Your task to perform on an android device: toggle improve location accuracy Image 0: 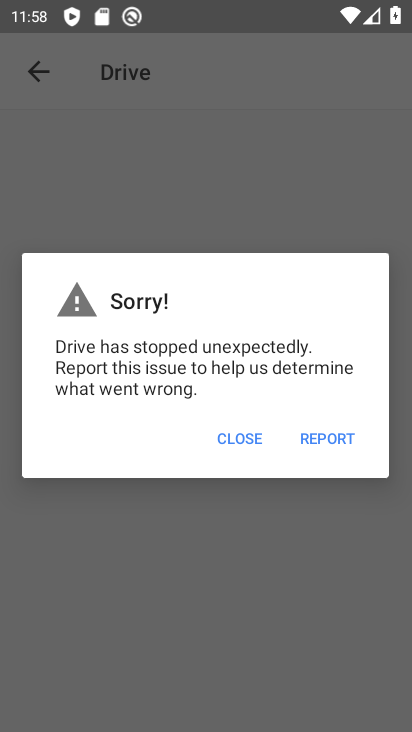
Step 0: press home button
Your task to perform on an android device: toggle improve location accuracy Image 1: 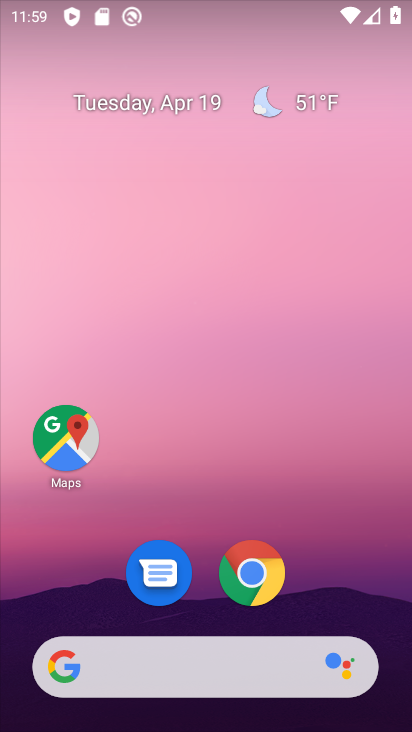
Step 1: drag from (315, 585) to (284, 132)
Your task to perform on an android device: toggle improve location accuracy Image 2: 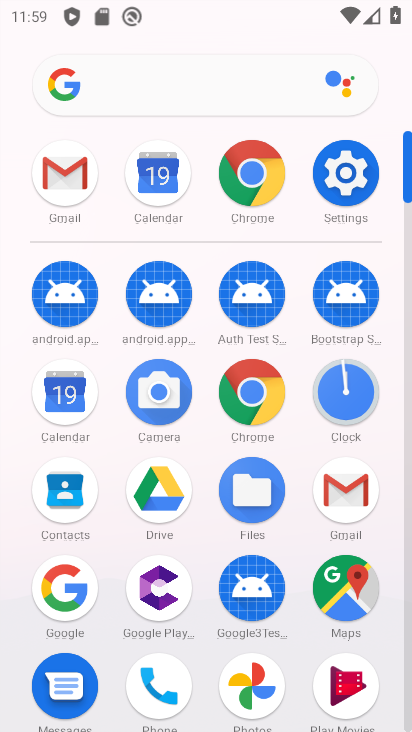
Step 2: drag from (346, 184) to (327, 240)
Your task to perform on an android device: toggle improve location accuracy Image 3: 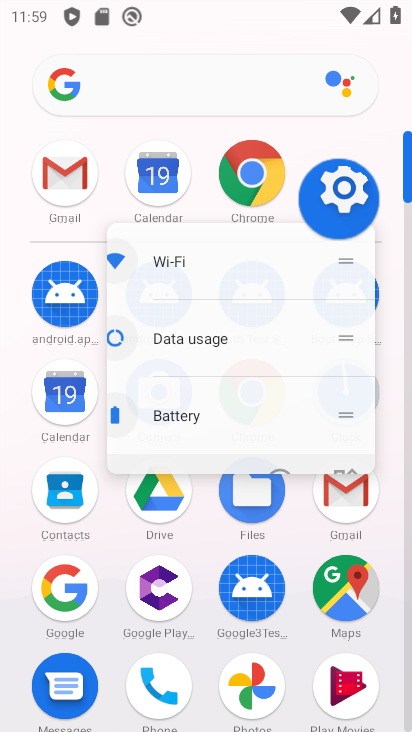
Step 3: click (330, 174)
Your task to perform on an android device: toggle improve location accuracy Image 4: 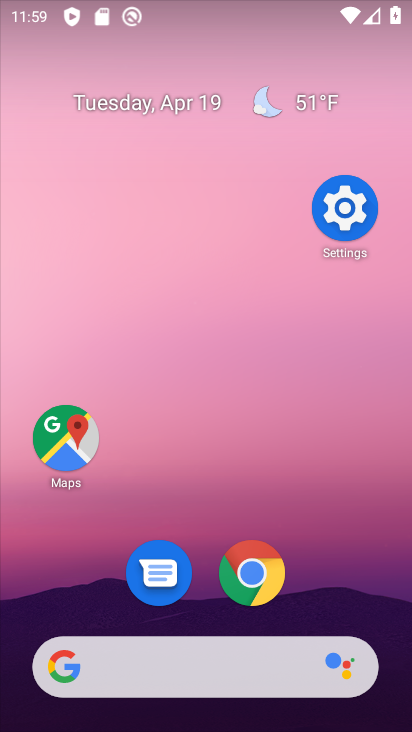
Step 4: click (347, 222)
Your task to perform on an android device: toggle improve location accuracy Image 5: 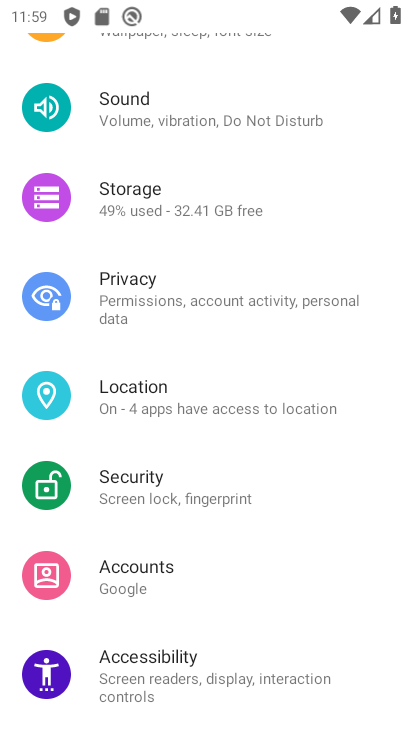
Step 5: click (202, 410)
Your task to perform on an android device: toggle improve location accuracy Image 6: 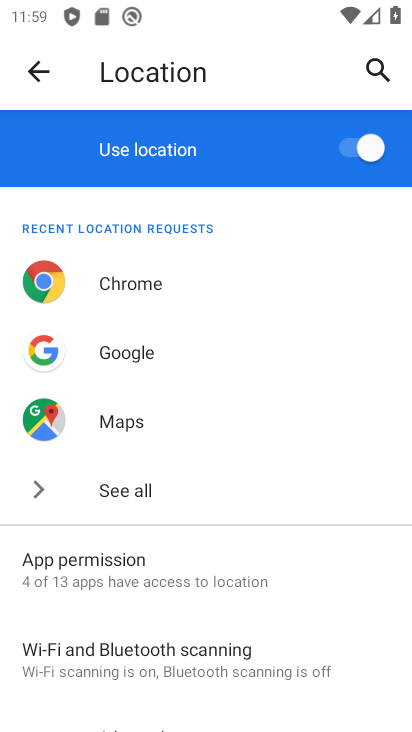
Step 6: drag from (152, 598) to (191, 350)
Your task to perform on an android device: toggle improve location accuracy Image 7: 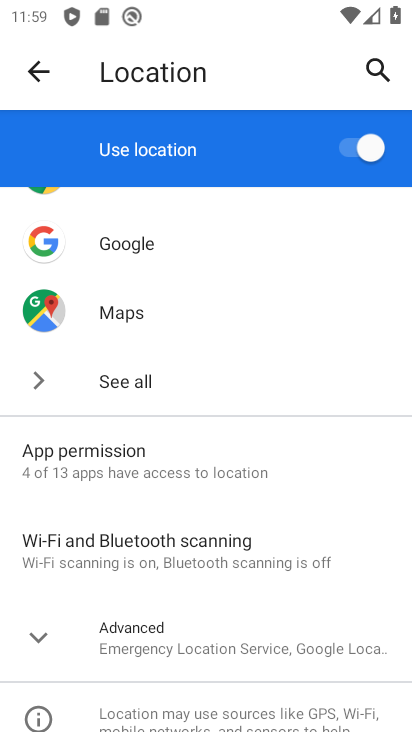
Step 7: drag from (142, 600) to (175, 351)
Your task to perform on an android device: toggle improve location accuracy Image 8: 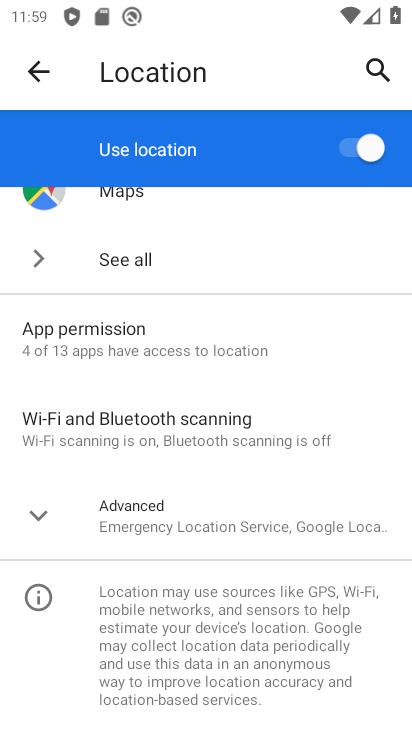
Step 8: click (46, 515)
Your task to perform on an android device: toggle improve location accuracy Image 9: 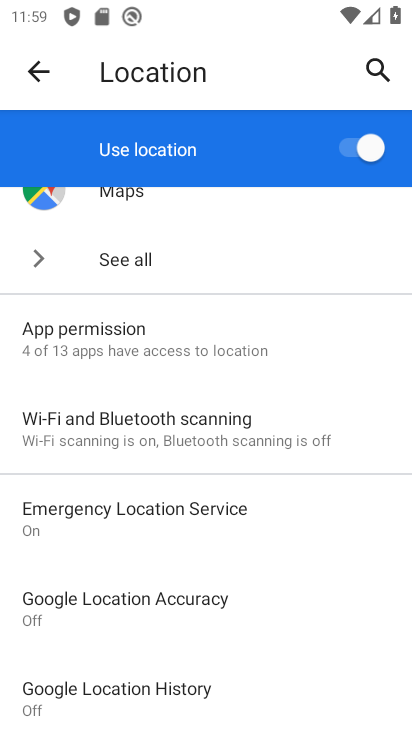
Step 9: click (195, 592)
Your task to perform on an android device: toggle improve location accuracy Image 10: 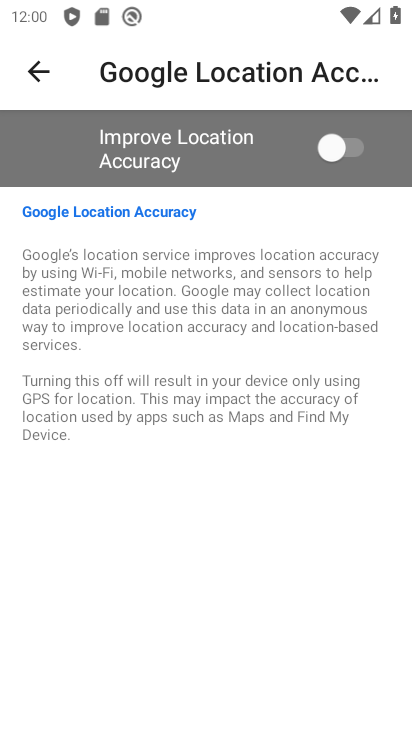
Step 10: click (338, 153)
Your task to perform on an android device: toggle improve location accuracy Image 11: 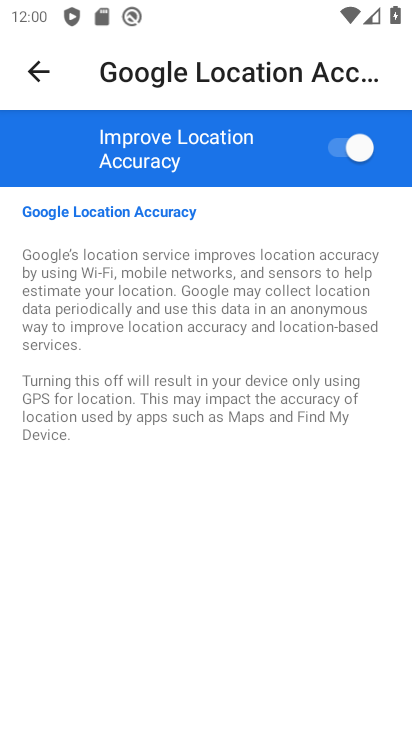
Step 11: task complete